Your task to perform on an android device: Open location settings Image 0: 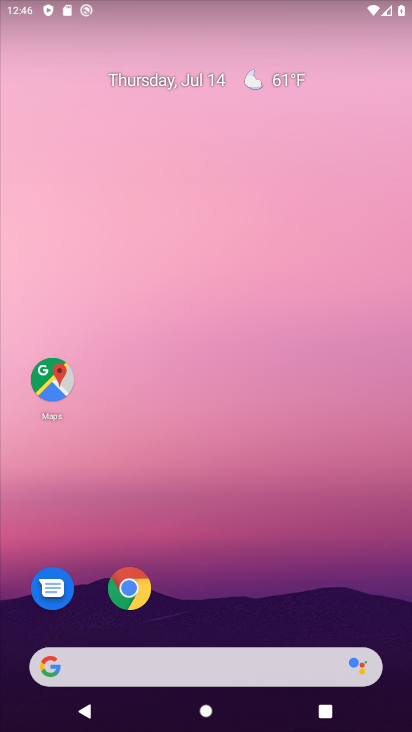
Step 0: drag from (285, 608) to (354, 140)
Your task to perform on an android device: Open location settings Image 1: 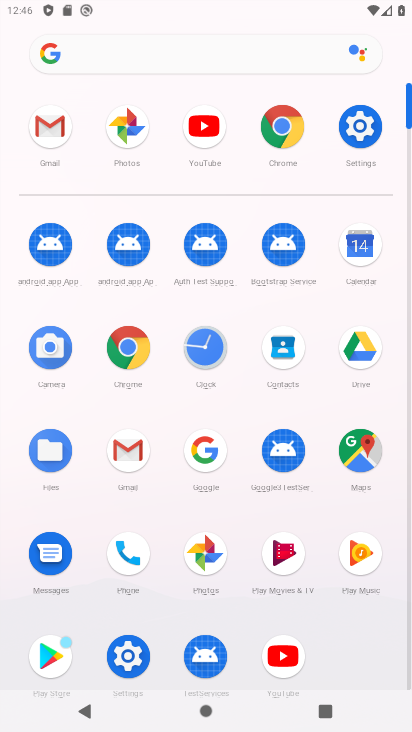
Step 1: click (355, 129)
Your task to perform on an android device: Open location settings Image 2: 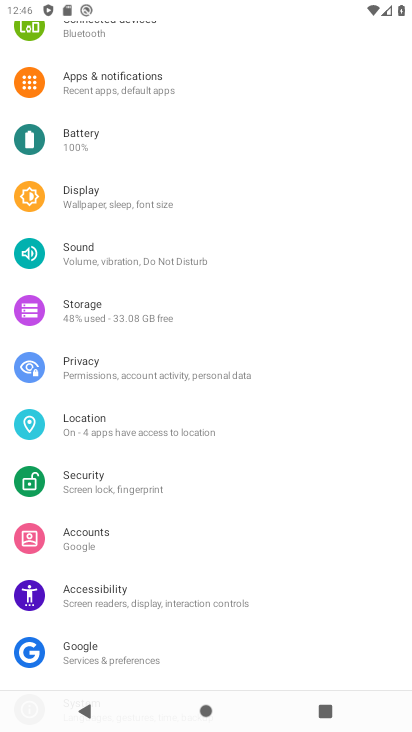
Step 2: click (98, 421)
Your task to perform on an android device: Open location settings Image 3: 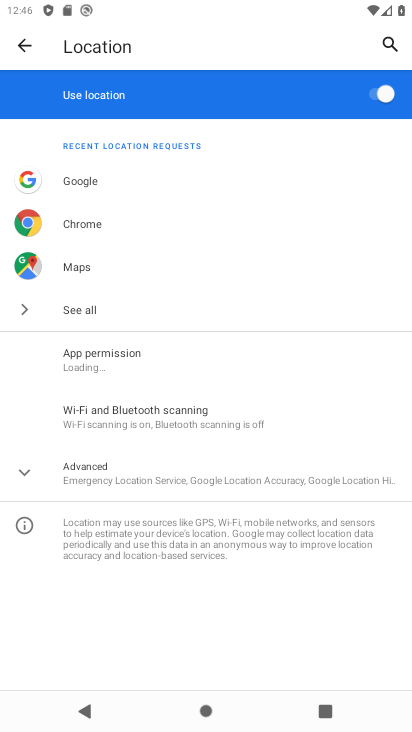
Step 3: task complete